Your task to perform on an android device: Open Reddit.com Image 0: 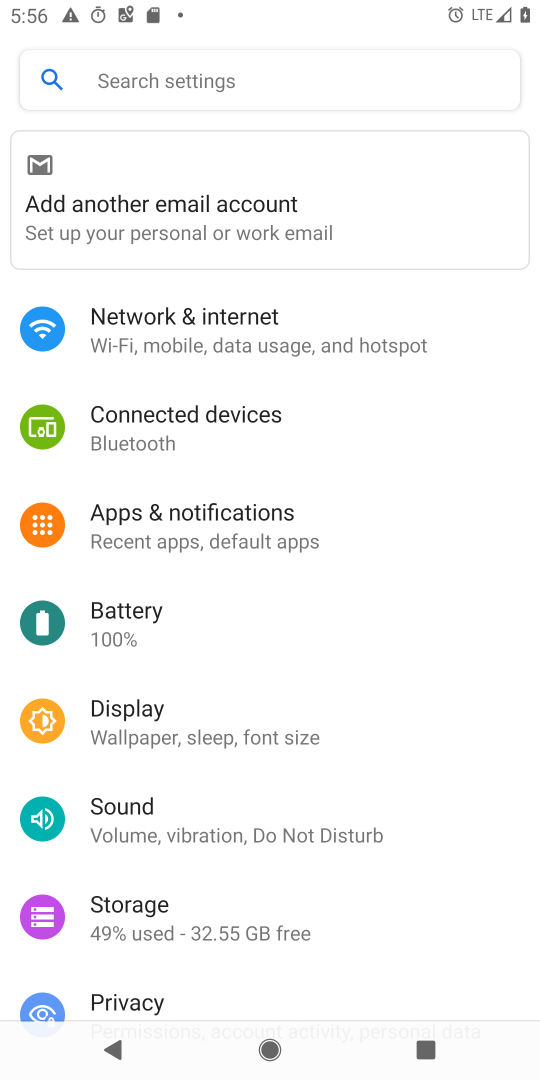
Step 0: press back button
Your task to perform on an android device: Open Reddit.com Image 1: 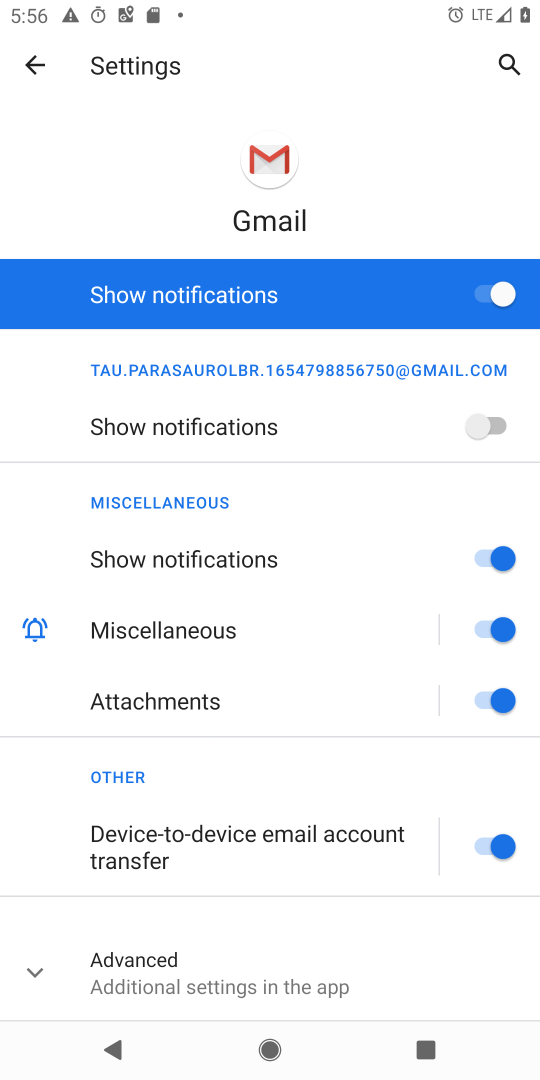
Step 1: press back button
Your task to perform on an android device: Open Reddit.com Image 2: 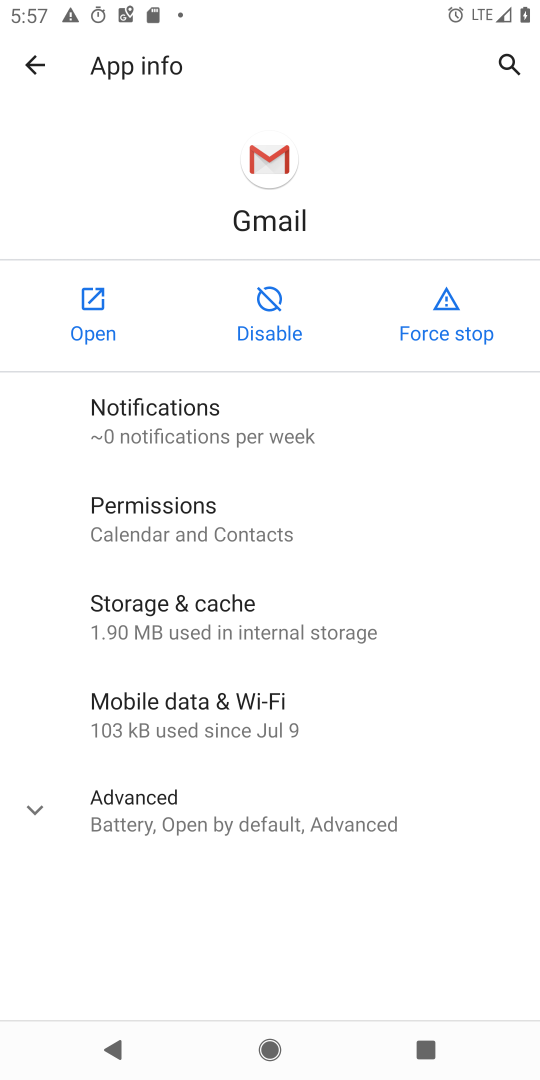
Step 2: press back button
Your task to perform on an android device: Open Reddit.com Image 3: 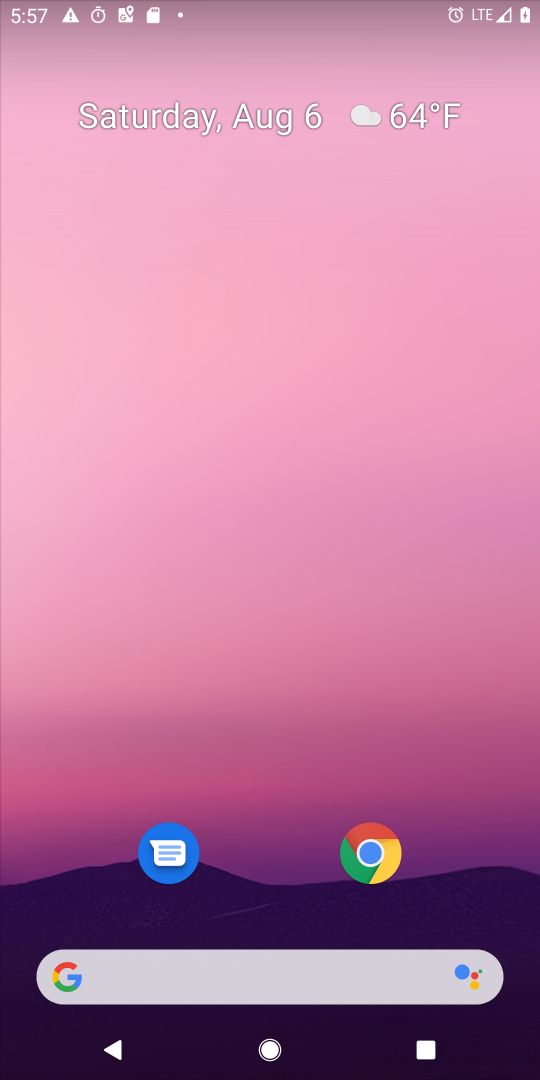
Step 3: click (372, 860)
Your task to perform on an android device: Open Reddit.com Image 4: 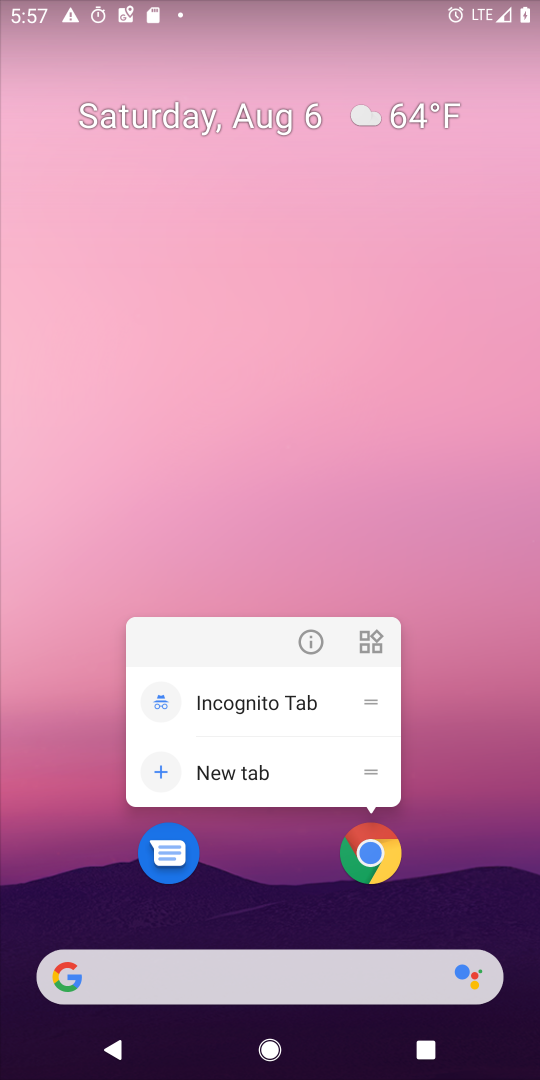
Step 4: click (371, 849)
Your task to perform on an android device: Open Reddit.com Image 5: 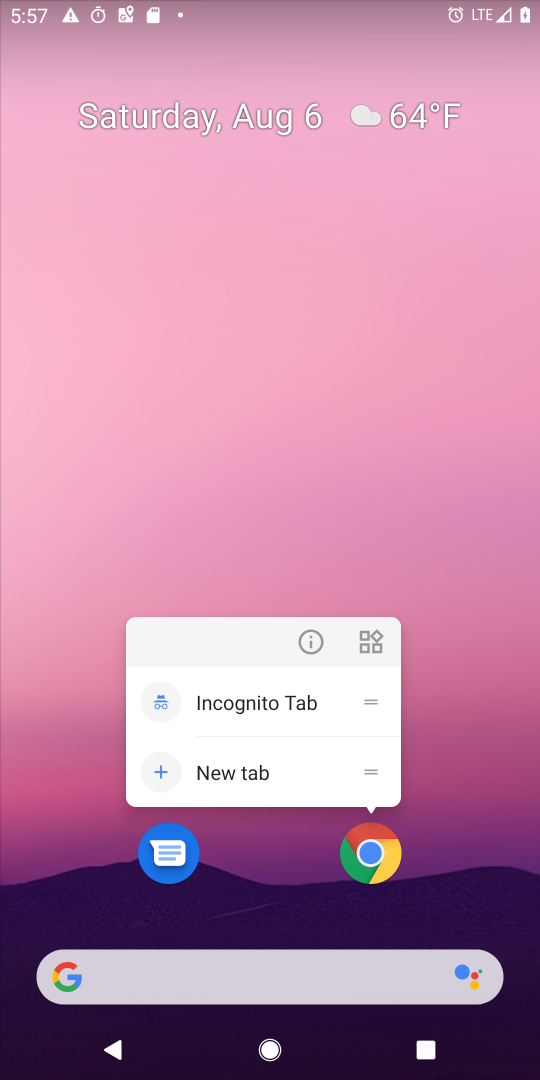
Step 5: click (365, 846)
Your task to perform on an android device: Open Reddit.com Image 6: 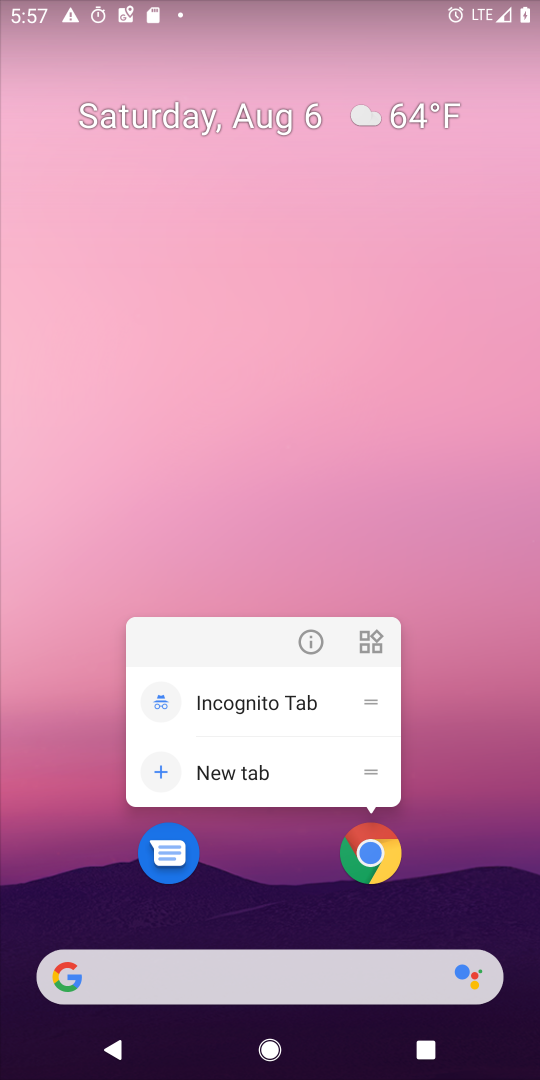
Step 6: click (350, 848)
Your task to perform on an android device: Open Reddit.com Image 7: 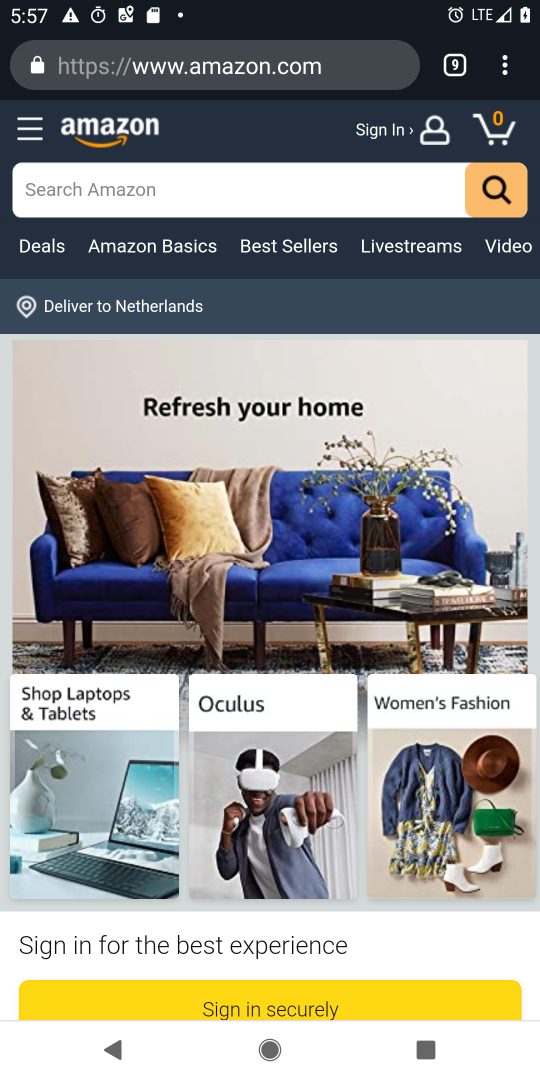
Step 7: click (445, 57)
Your task to perform on an android device: Open Reddit.com Image 8: 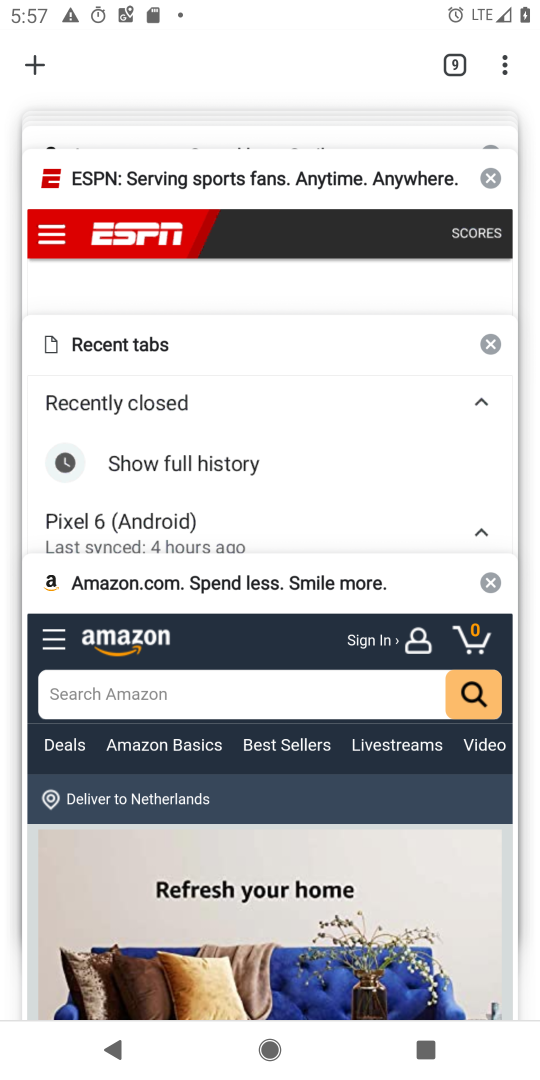
Step 8: drag from (206, 200) to (219, 922)
Your task to perform on an android device: Open Reddit.com Image 9: 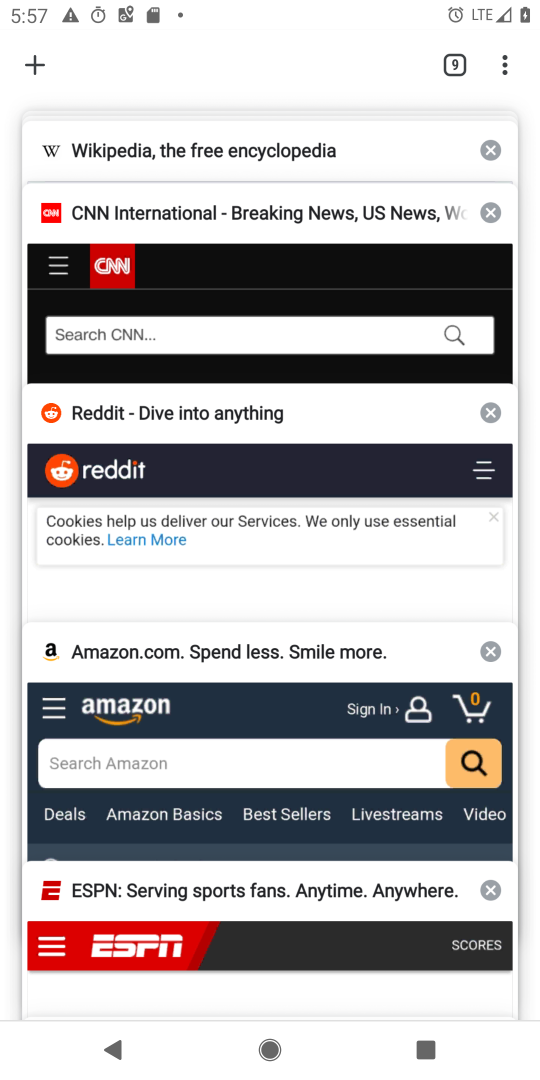
Step 9: click (112, 464)
Your task to perform on an android device: Open Reddit.com Image 10: 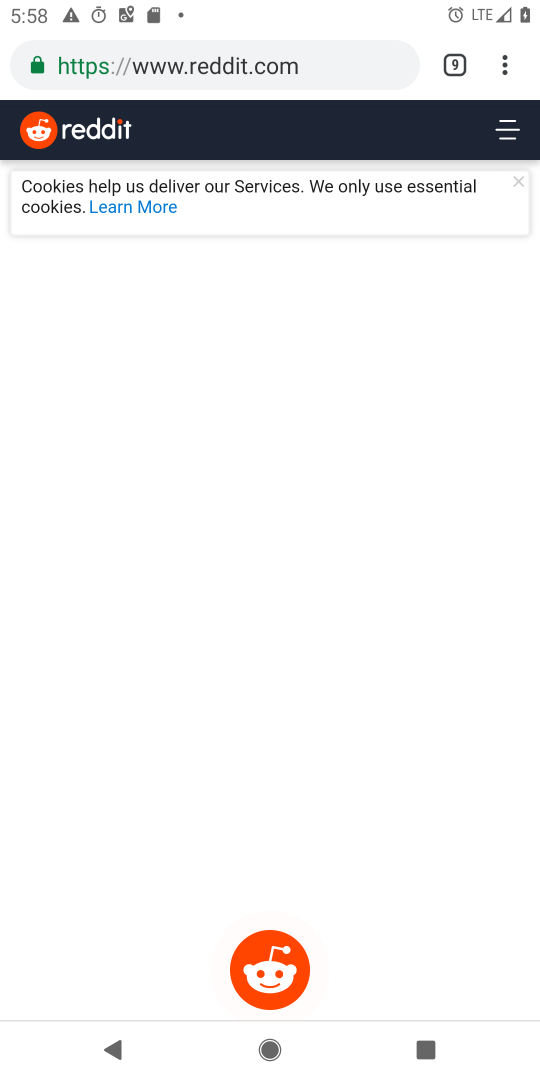
Step 10: task complete